Your task to perform on an android device: Search for a new water heater on Home Depot Image 0: 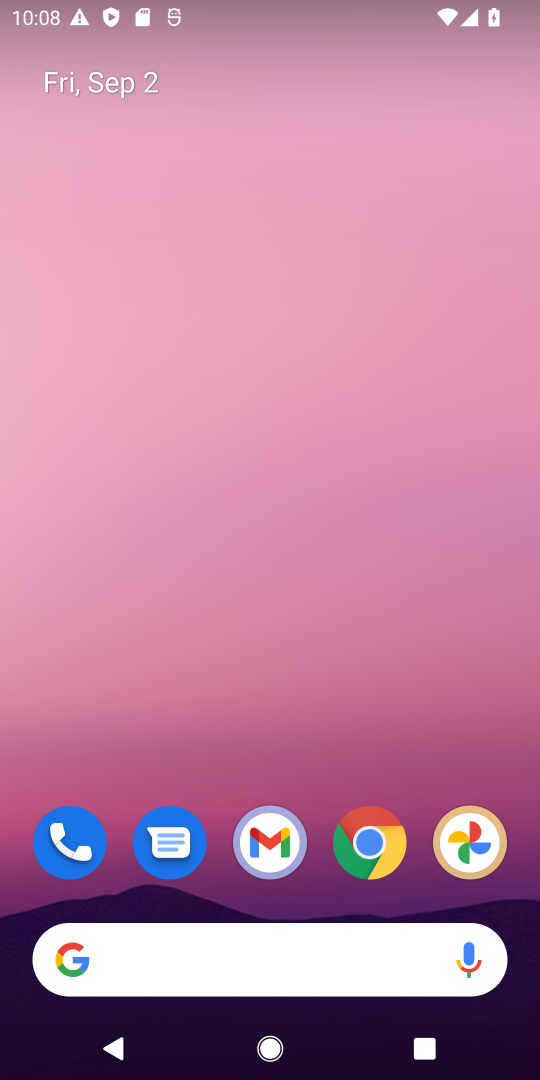
Step 0: click (225, 188)
Your task to perform on an android device: Search for a new water heater on Home Depot Image 1: 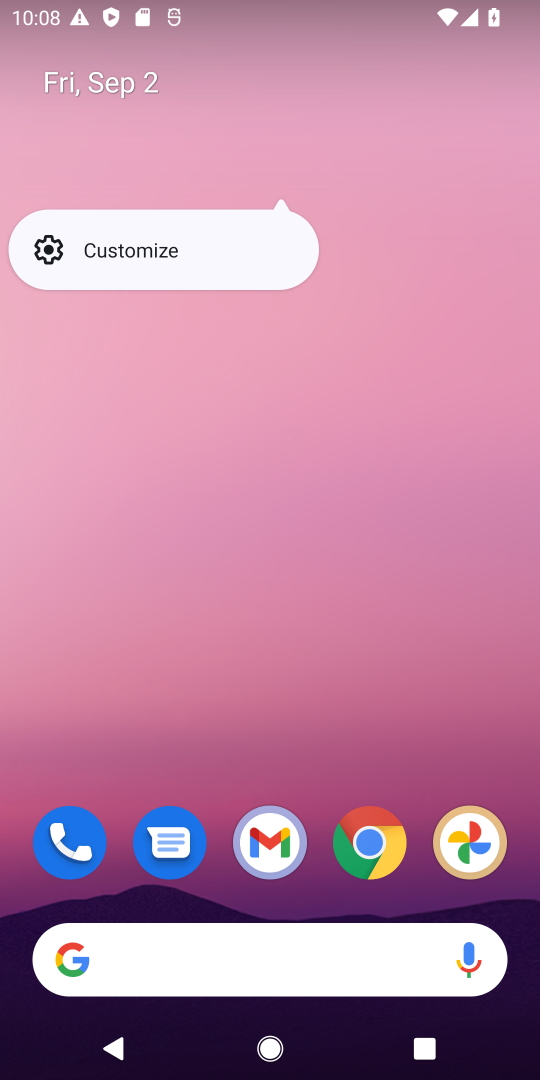
Step 1: click (396, 484)
Your task to perform on an android device: Search for a new water heater on Home Depot Image 2: 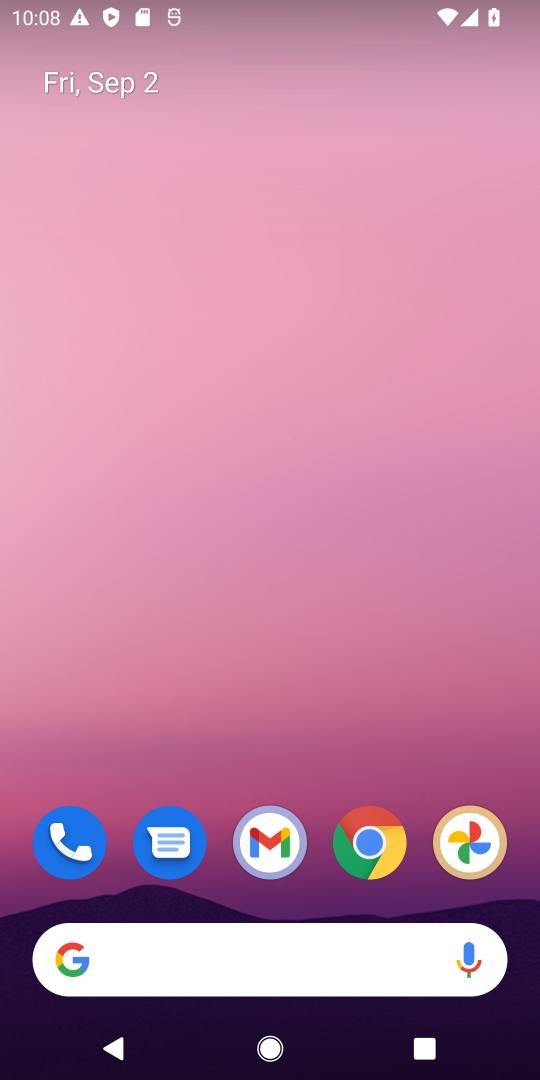
Step 2: drag from (313, 904) to (377, 314)
Your task to perform on an android device: Search for a new water heater on Home Depot Image 3: 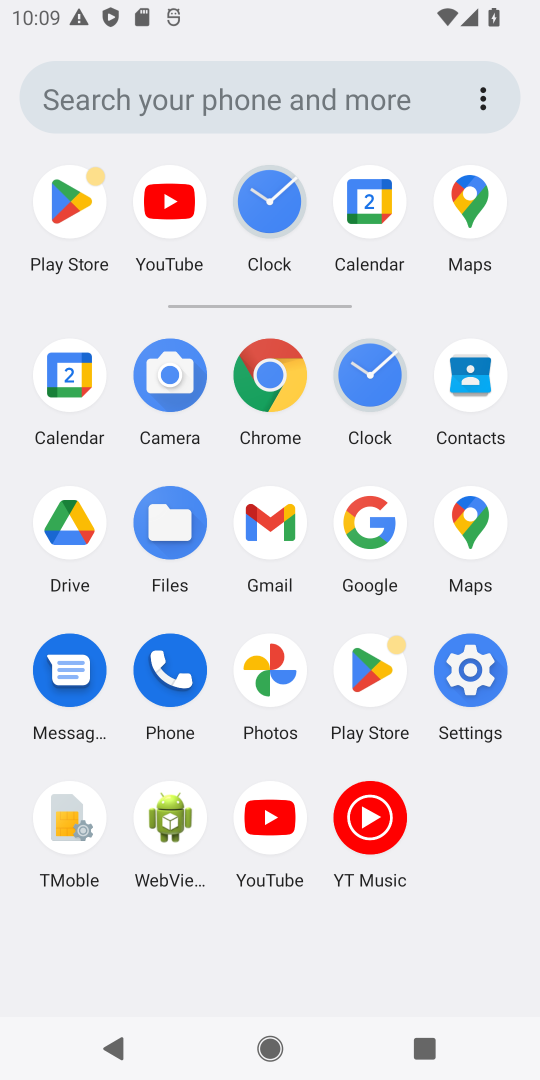
Step 3: click (281, 380)
Your task to perform on an android device: Search for a new water heater on Home Depot Image 4: 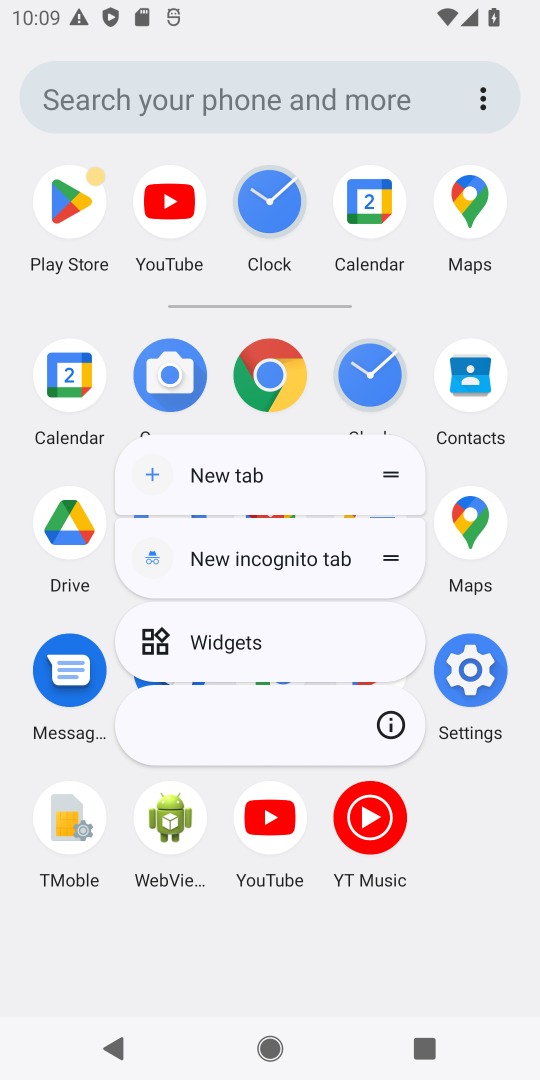
Step 4: click (281, 379)
Your task to perform on an android device: Search for a new water heater on Home Depot Image 5: 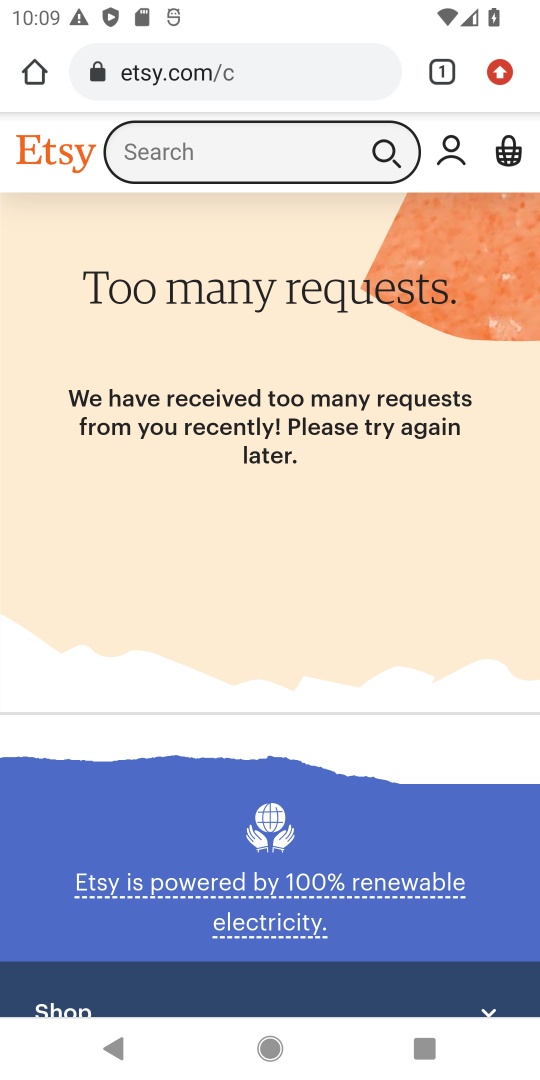
Step 5: click (304, 61)
Your task to perform on an android device: Search for a new water heater on Home Depot Image 6: 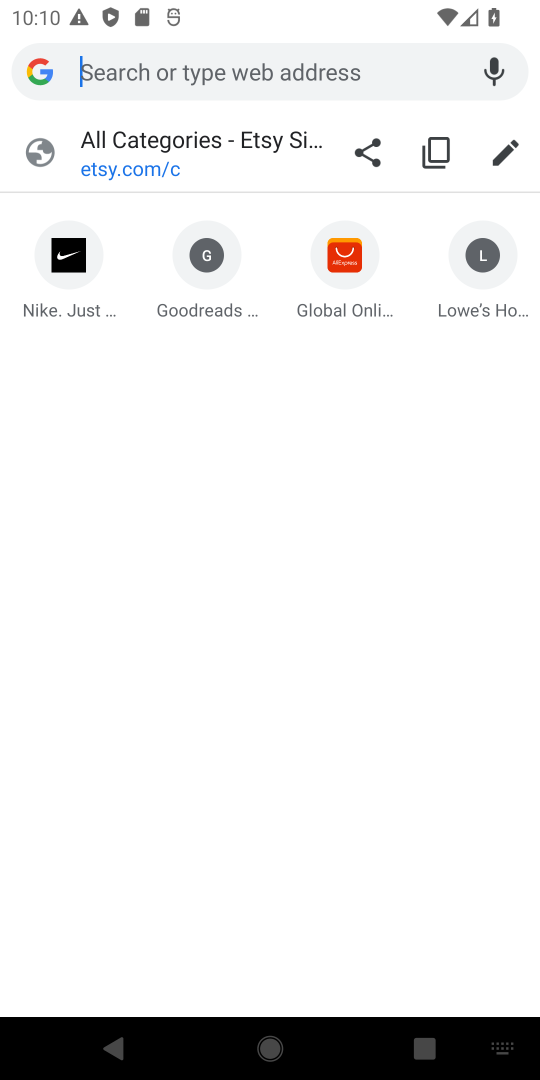
Step 6: press enter
Your task to perform on an android device: Search for a new water heater on Home Depot Image 7: 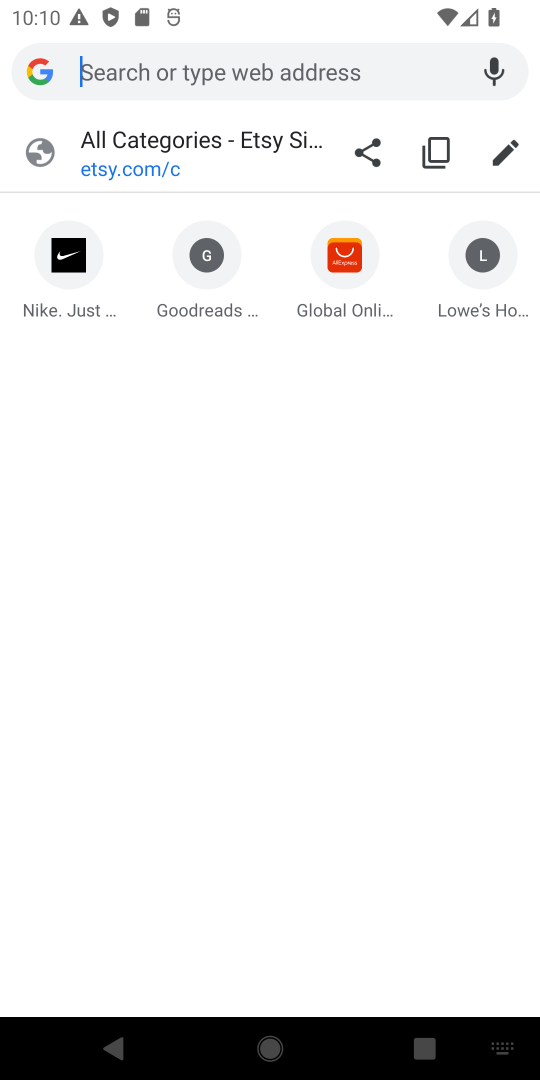
Step 7: type "Home Depot"
Your task to perform on an android device: Search for a new water heater on Home Depot Image 8: 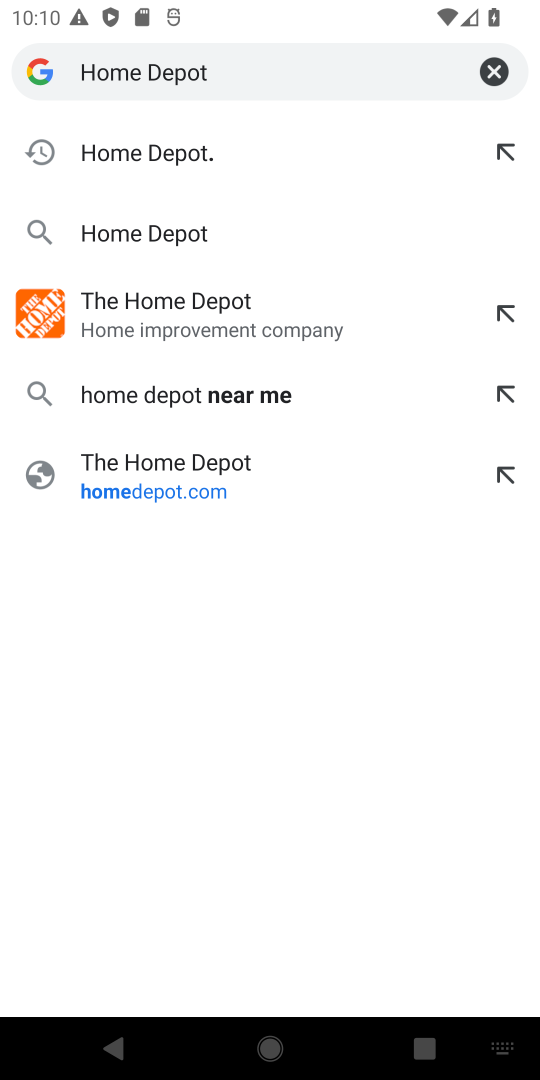
Step 8: click (184, 152)
Your task to perform on an android device: Search for a new water heater on Home Depot Image 9: 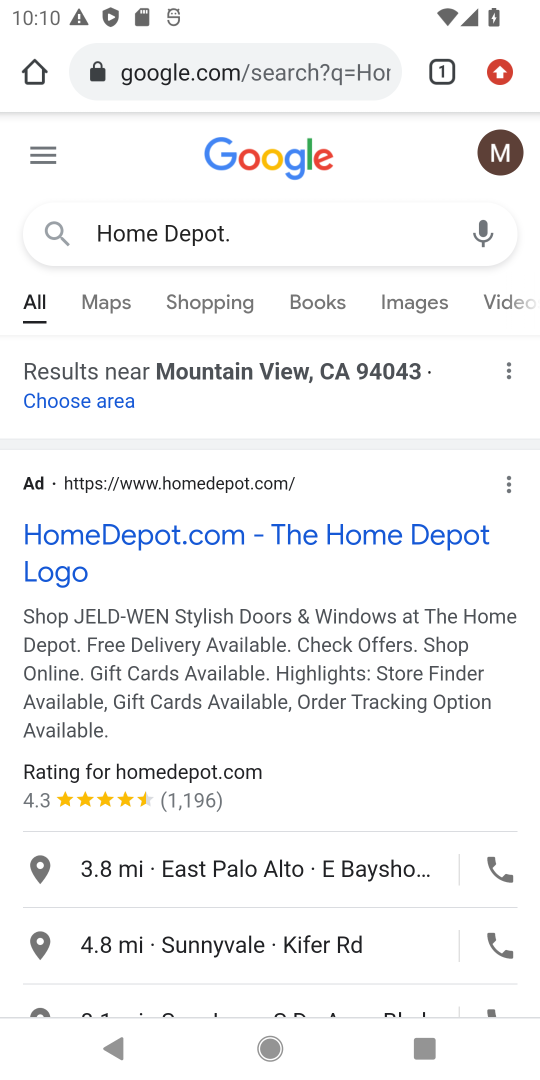
Step 9: drag from (162, 629) to (234, 374)
Your task to perform on an android device: Search for a new water heater on Home Depot Image 10: 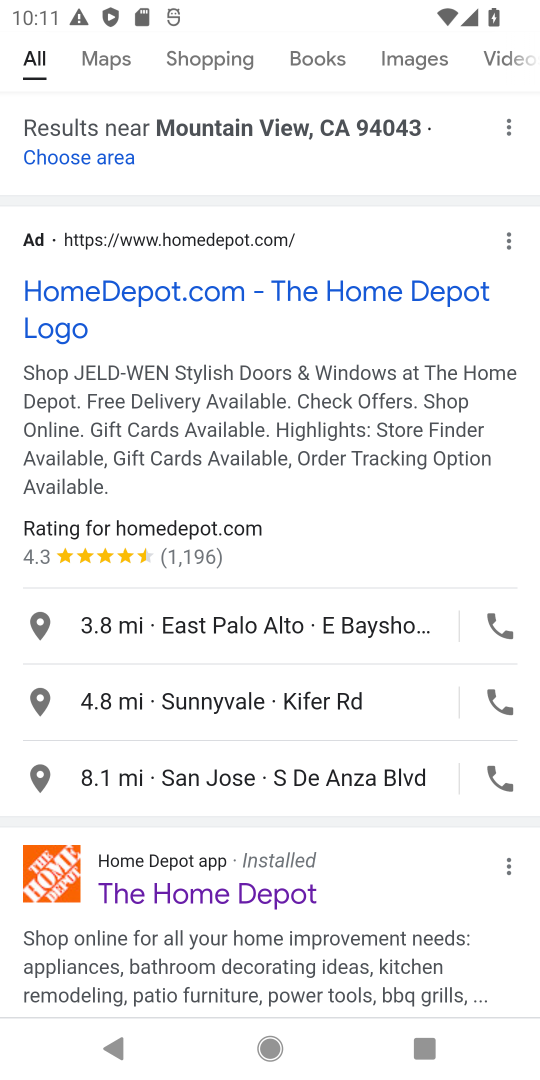
Step 10: click (168, 875)
Your task to perform on an android device: Search for a new water heater on Home Depot Image 11: 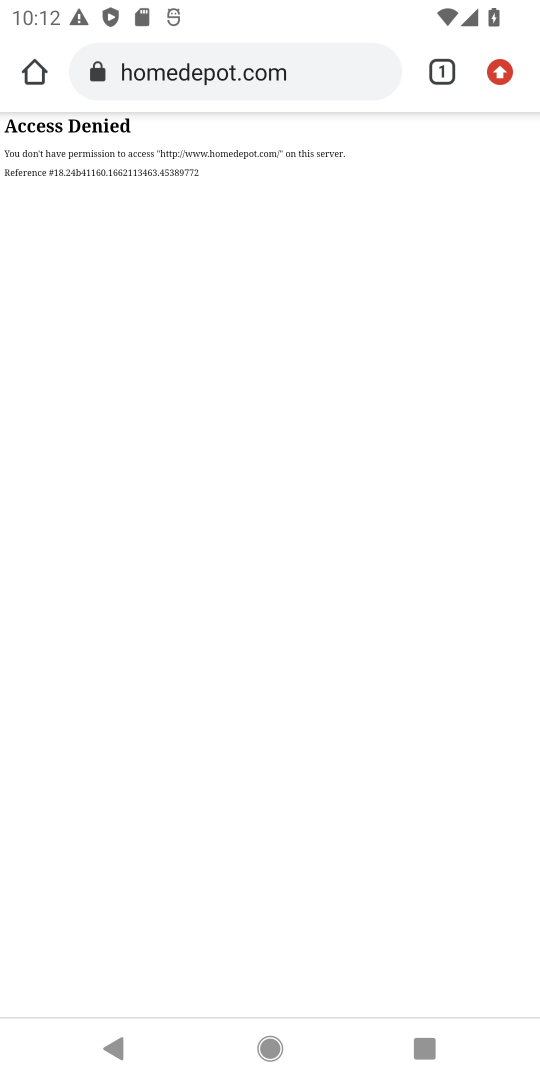
Step 11: task complete